Your task to perform on an android device: Go to Yahoo.com Image 0: 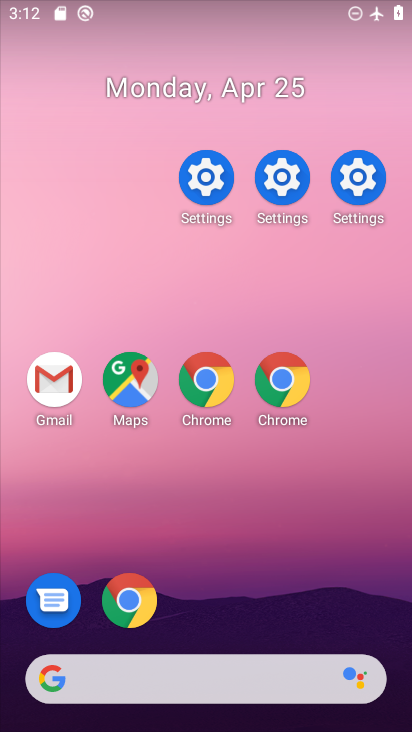
Step 0: drag from (216, 685) to (150, 274)
Your task to perform on an android device: Go to Yahoo.com Image 1: 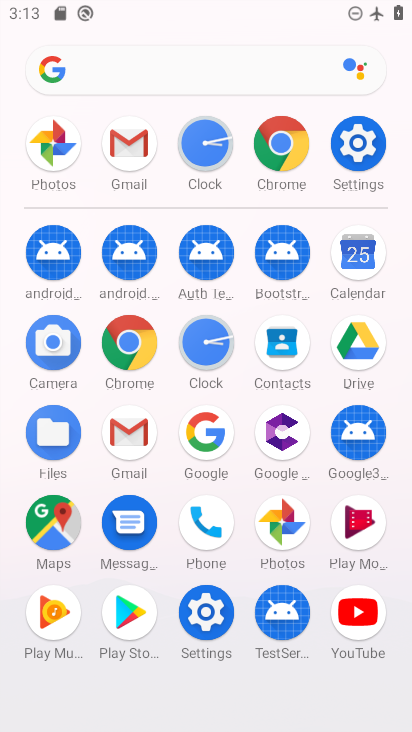
Step 1: click (357, 144)
Your task to perform on an android device: Go to Yahoo.com Image 2: 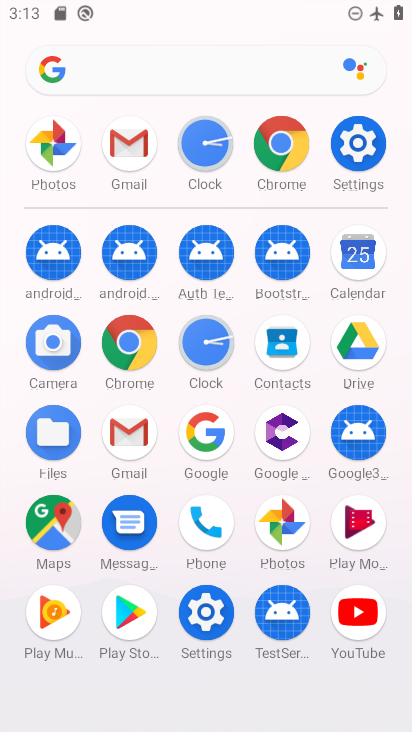
Step 2: click (357, 144)
Your task to perform on an android device: Go to Yahoo.com Image 3: 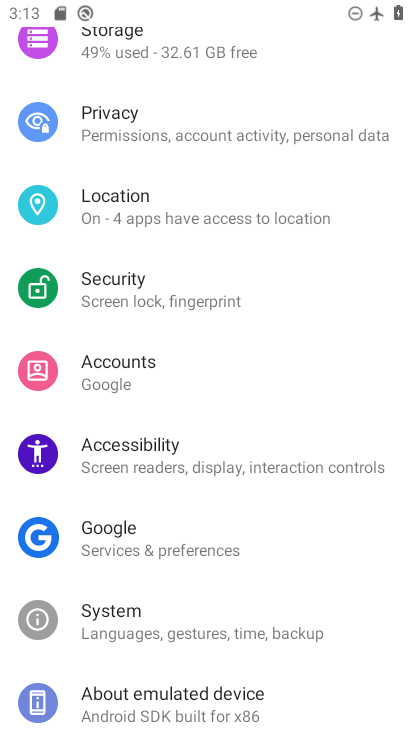
Step 3: press home button
Your task to perform on an android device: Go to Yahoo.com Image 4: 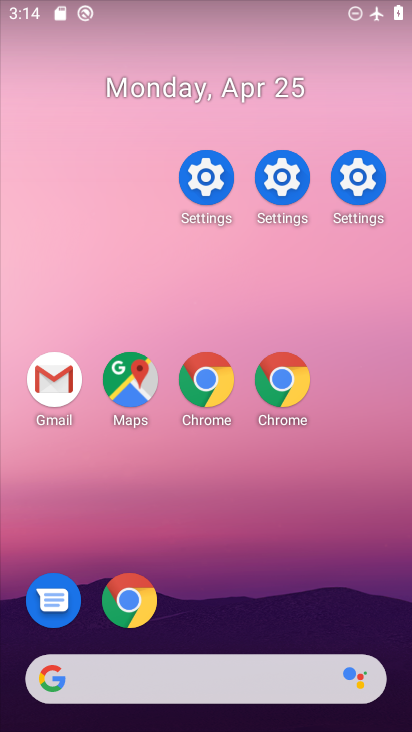
Step 4: drag from (235, 379) to (167, 13)
Your task to perform on an android device: Go to Yahoo.com Image 5: 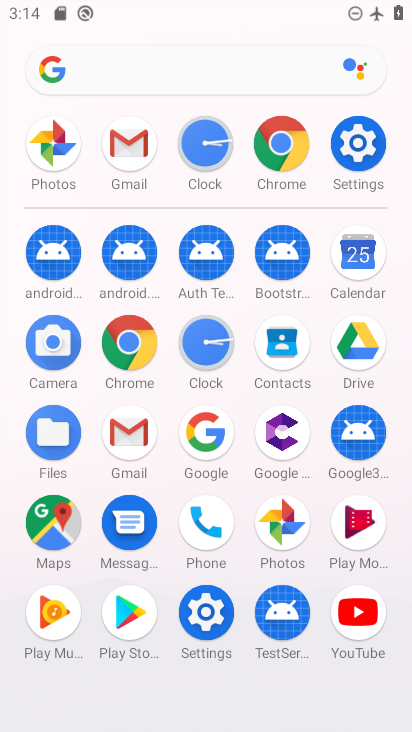
Step 5: click (274, 147)
Your task to perform on an android device: Go to Yahoo.com Image 6: 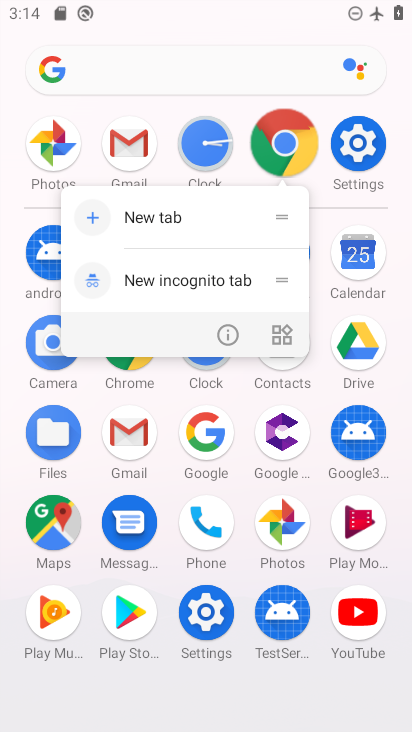
Step 6: click (277, 146)
Your task to perform on an android device: Go to Yahoo.com Image 7: 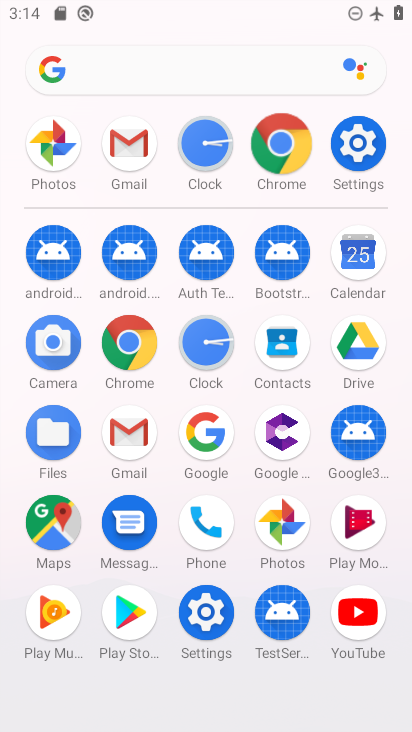
Step 7: click (275, 147)
Your task to perform on an android device: Go to Yahoo.com Image 8: 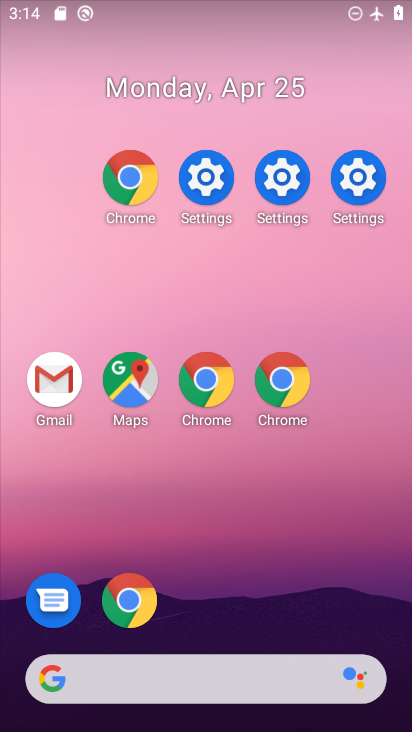
Step 8: click (182, 40)
Your task to perform on an android device: Go to Yahoo.com Image 9: 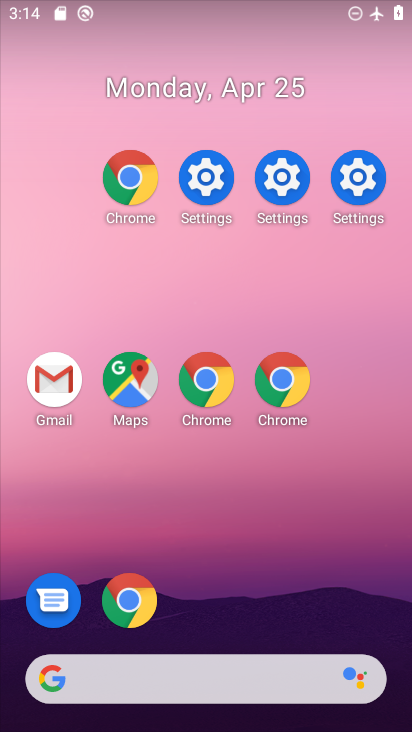
Step 9: drag from (289, 556) to (145, 43)
Your task to perform on an android device: Go to Yahoo.com Image 10: 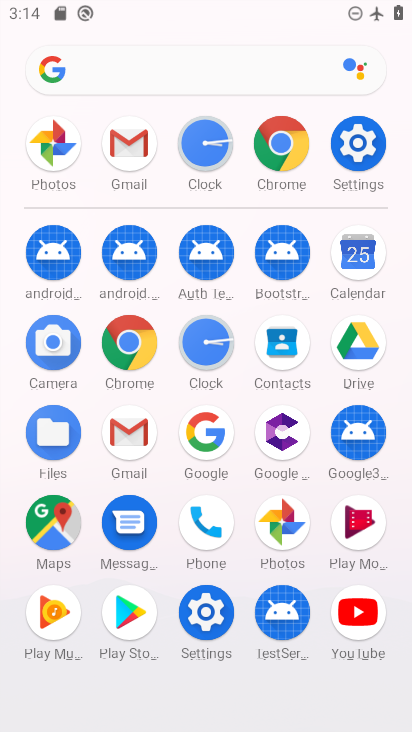
Step 10: drag from (284, 519) to (239, 82)
Your task to perform on an android device: Go to Yahoo.com Image 11: 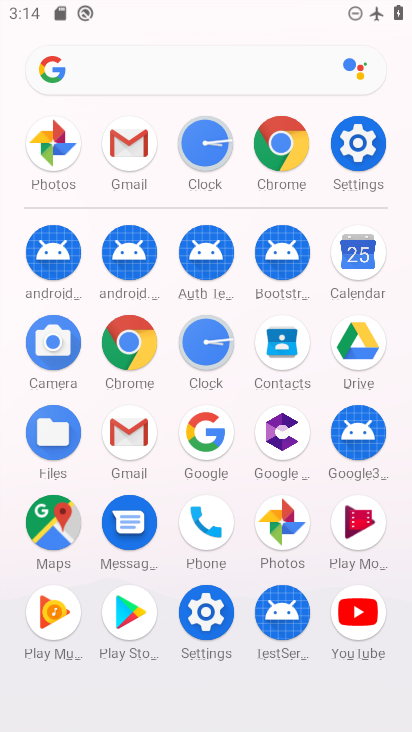
Step 11: click (282, 139)
Your task to perform on an android device: Go to Yahoo.com Image 12: 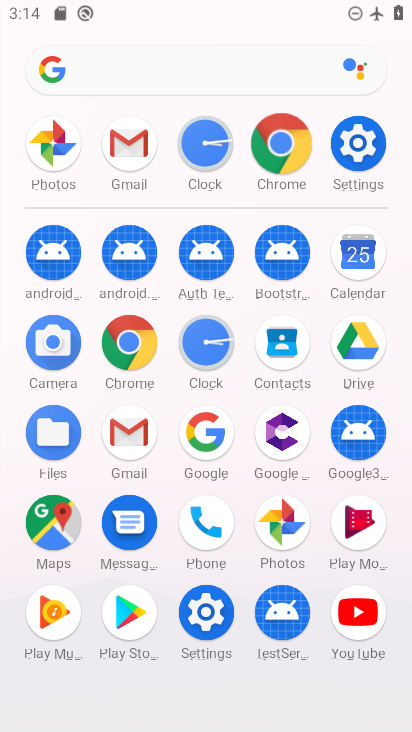
Step 12: click (282, 139)
Your task to perform on an android device: Go to Yahoo.com Image 13: 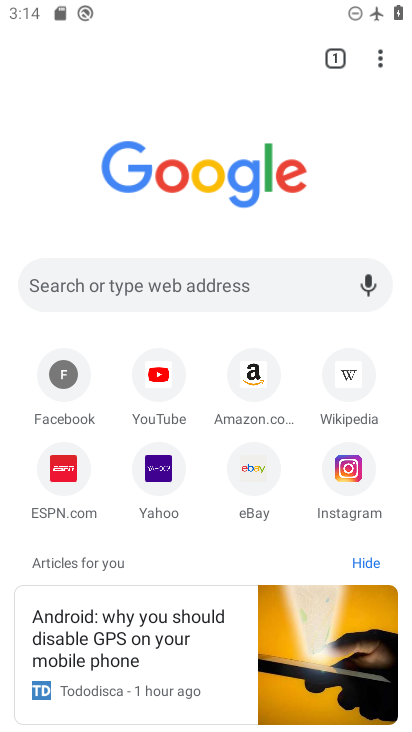
Step 13: click (385, 59)
Your task to perform on an android device: Go to Yahoo.com Image 14: 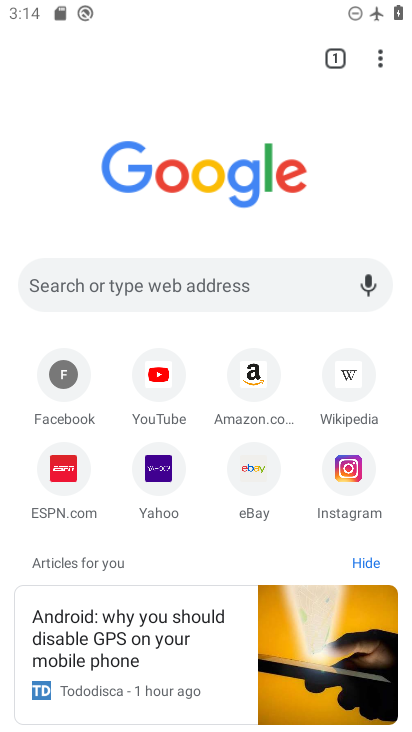
Step 14: click (377, 63)
Your task to perform on an android device: Go to Yahoo.com Image 15: 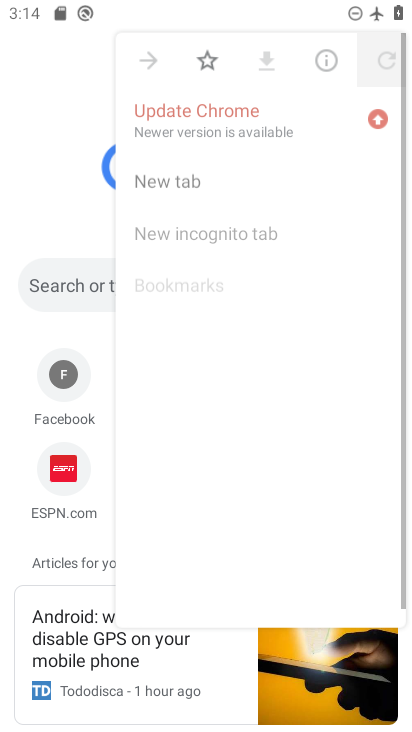
Step 15: click (377, 63)
Your task to perform on an android device: Go to Yahoo.com Image 16: 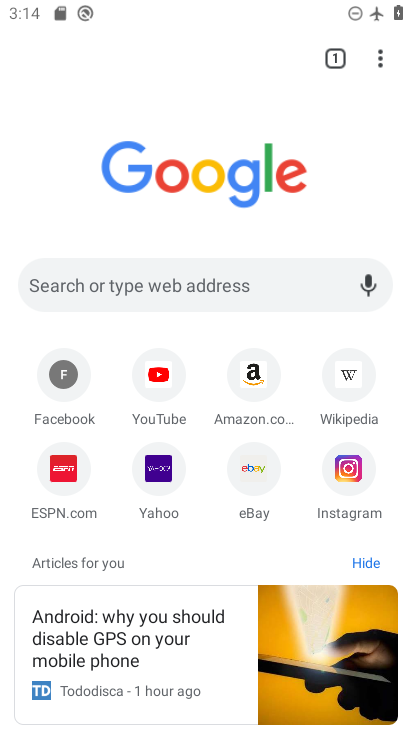
Step 16: click (380, 54)
Your task to perform on an android device: Go to Yahoo.com Image 17: 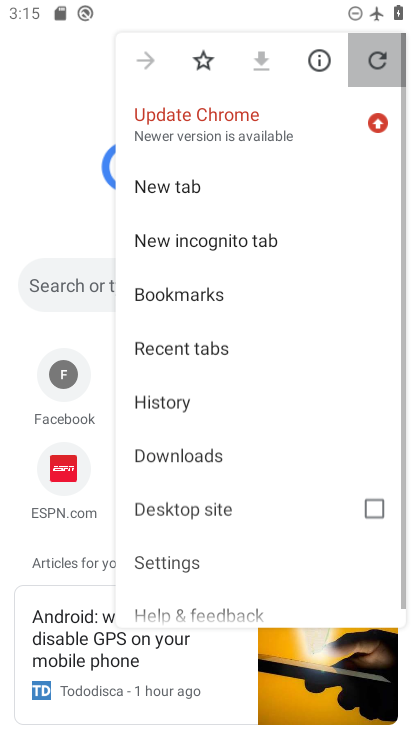
Step 17: click (380, 46)
Your task to perform on an android device: Go to Yahoo.com Image 18: 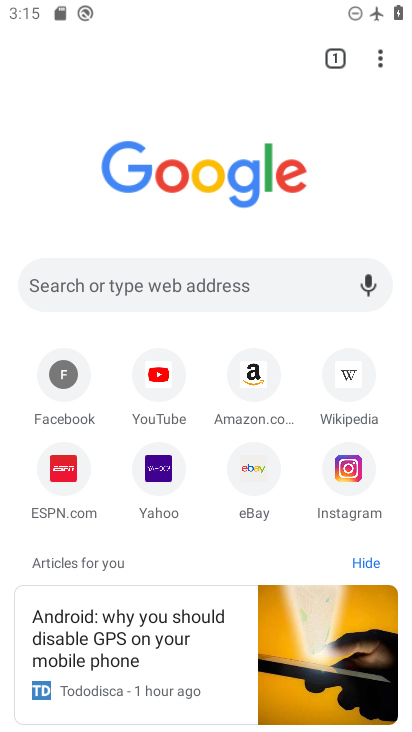
Step 18: click (159, 471)
Your task to perform on an android device: Go to Yahoo.com Image 19: 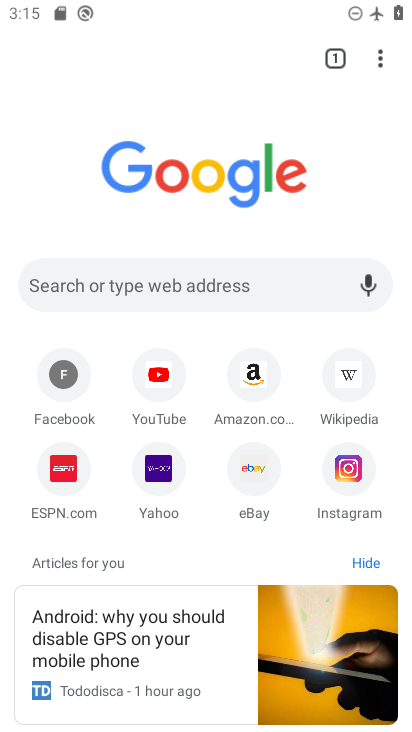
Step 19: click (156, 474)
Your task to perform on an android device: Go to Yahoo.com Image 20: 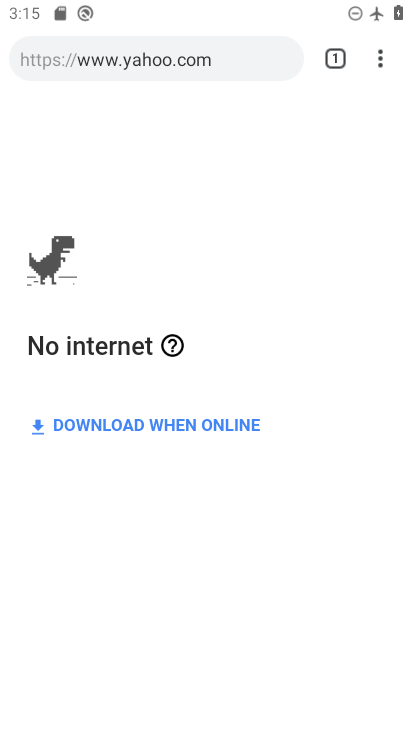
Step 20: task complete